Your task to perform on an android device: toggle wifi Image 0: 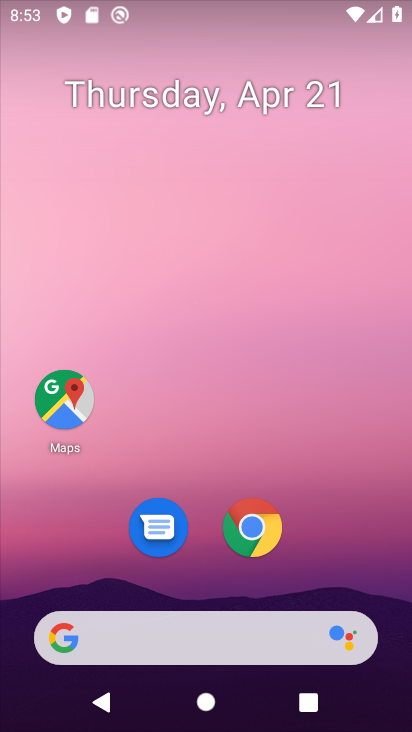
Step 0: drag from (202, 570) to (284, 137)
Your task to perform on an android device: toggle wifi Image 1: 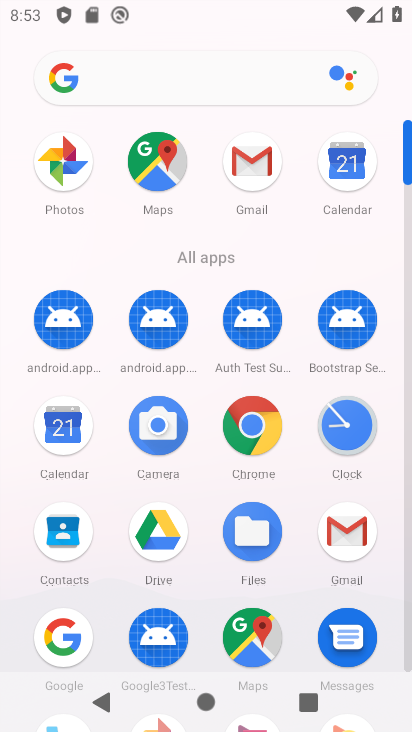
Step 1: drag from (208, 587) to (241, 142)
Your task to perform on an android device: toggle wifi Image 2: 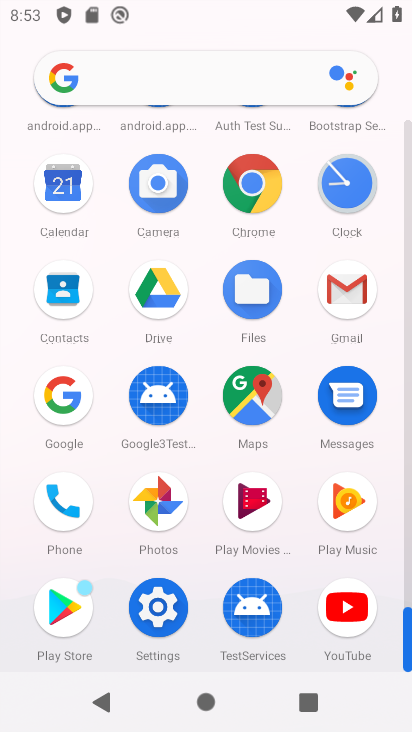
Step 2: click (159, 601)
Your task to perform on an android device: toggle wifi Image 3: 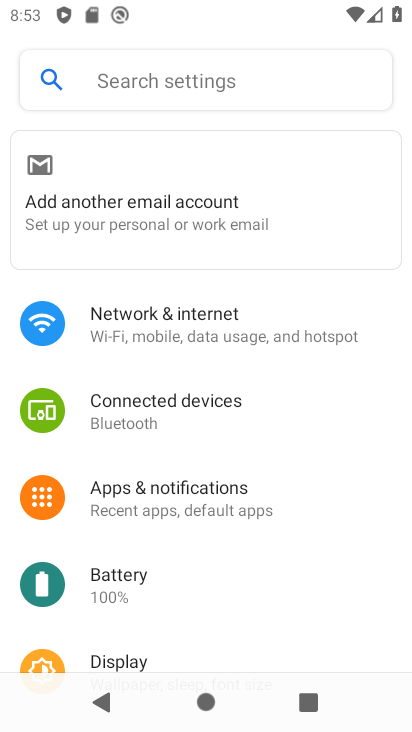
Step 3: click (167, 323)
Your task to perform on an android device: toggle wifi Image 4: 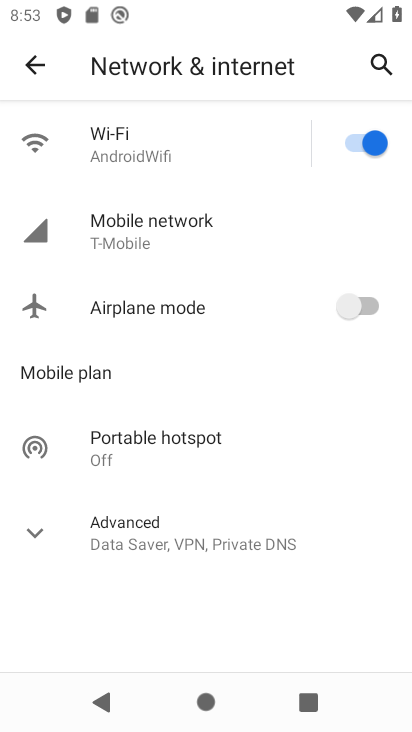
Step 4: click (197, 137)
Your task to perform on an android device: toggle wifi Image 5: 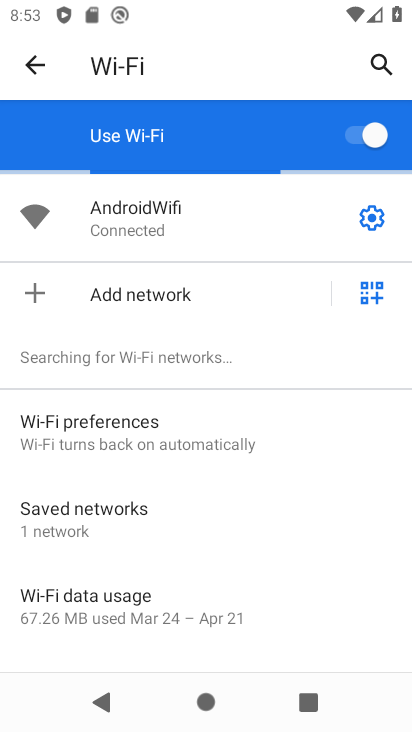
Step 5: click (365, 135)
Your task to perform on an android device: toggle wifi Image 6: 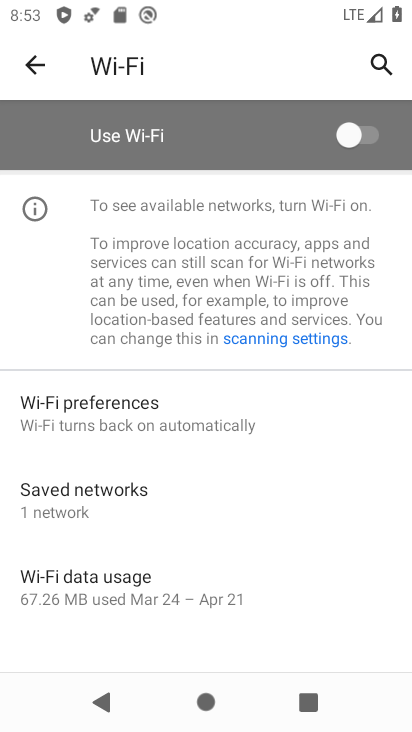
Step 6: task complete